Your task to perform on an android device: Open Maps and search for coffee Image 0: 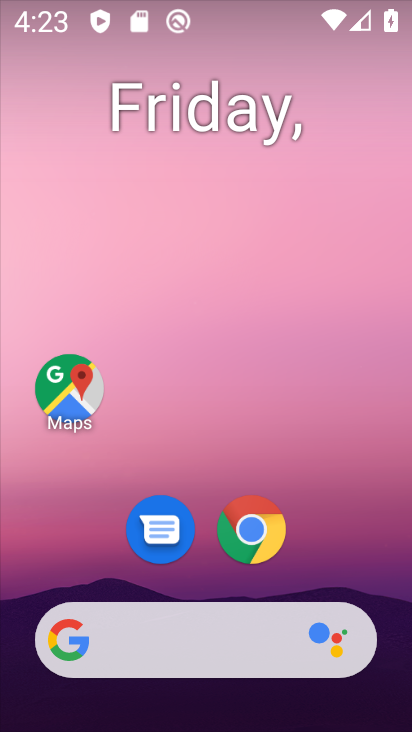
Step 0: drag from (319, 559) to (273, 1)
Your task to perform on an android device: Open Maps and search for coffee Image 1: 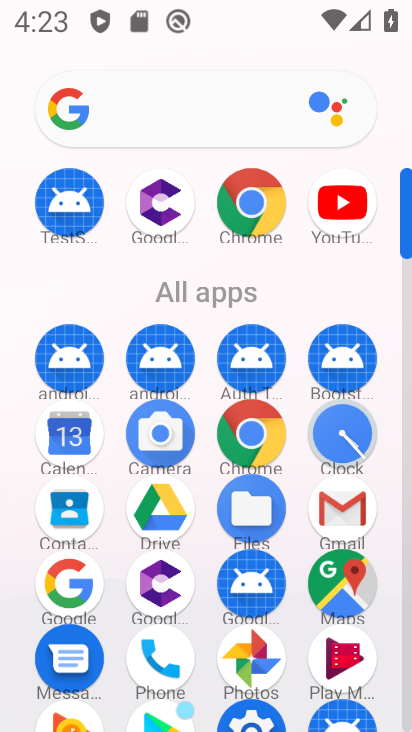
Step 1: click (345, 599)
Your task to perform on an android device: Open Maps and search for coffee Image 2: 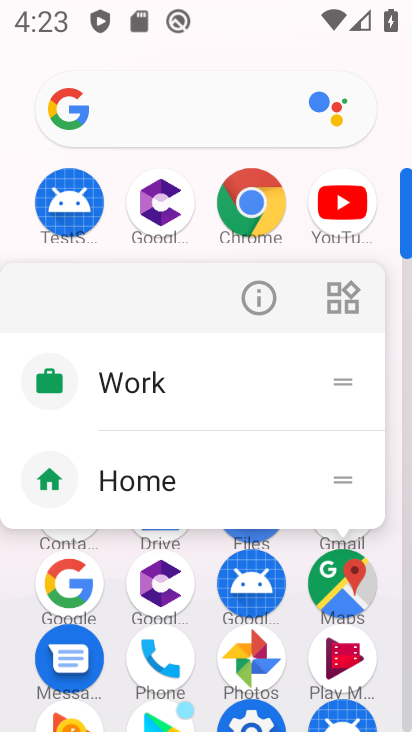
Step 2: click (341, 594)
Your task to perform on an android device: Open Maps and search for coffee Image 3: 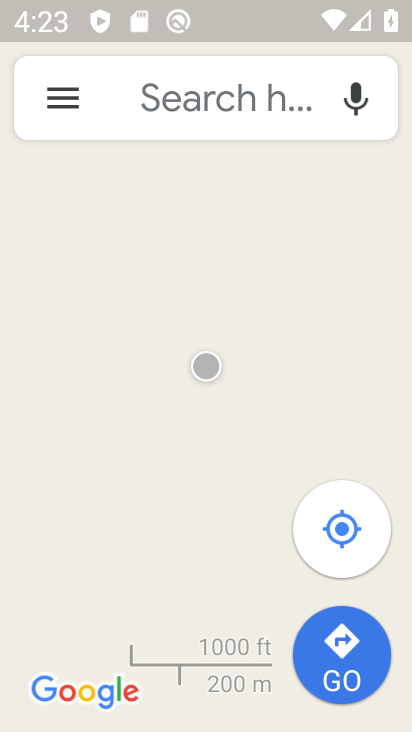
Step 3: click (211, 105)
Your task to perform on an android device: Open Maps and search for coffee Image 4: 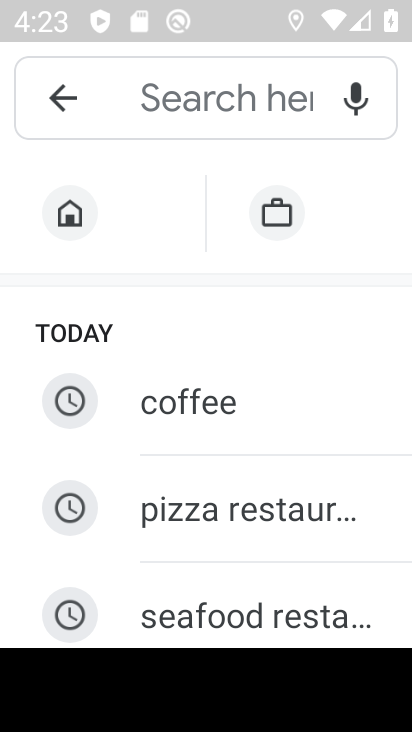
Step 4: click (243, 424)
Your task to perform on an android device: Open Maps and search for coffee Image 5: 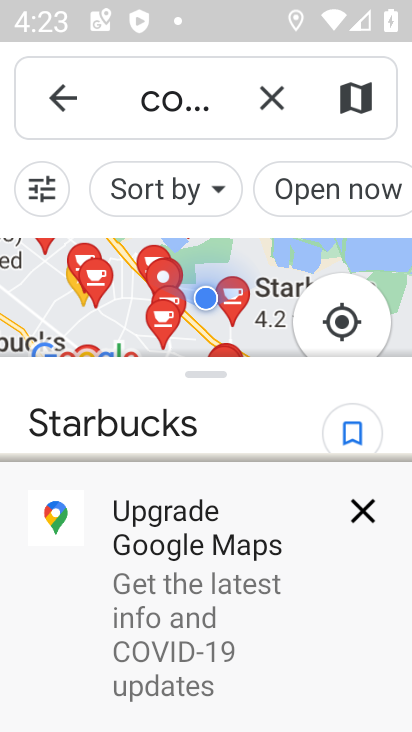
Step 5: click (371, 505)
Your task to perform on an android device: Open Maps and search for coffee Image 6: 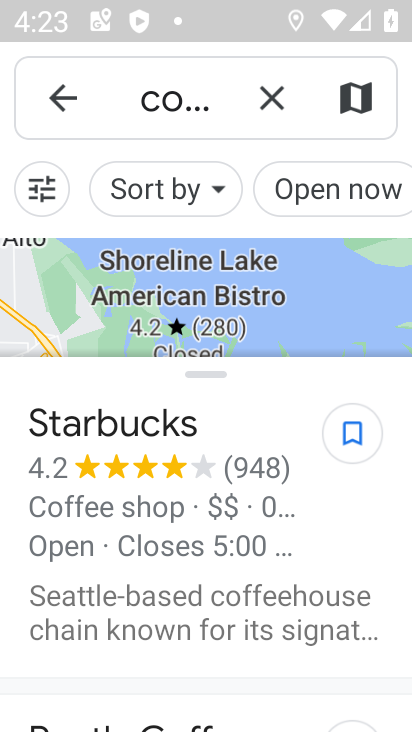
Step 6: task complete